Your task to perform on an android device: all mails in gmail Image 0: 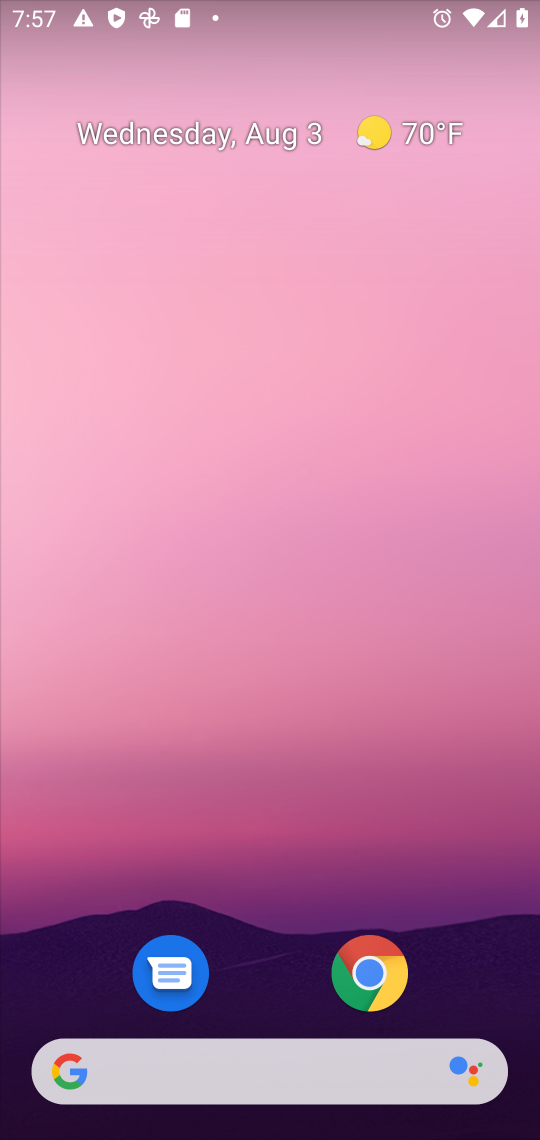
Step 0: drag from (267, 866) to (266, 102)
Your task to perform on an android device: all mails in gmail Image 1: 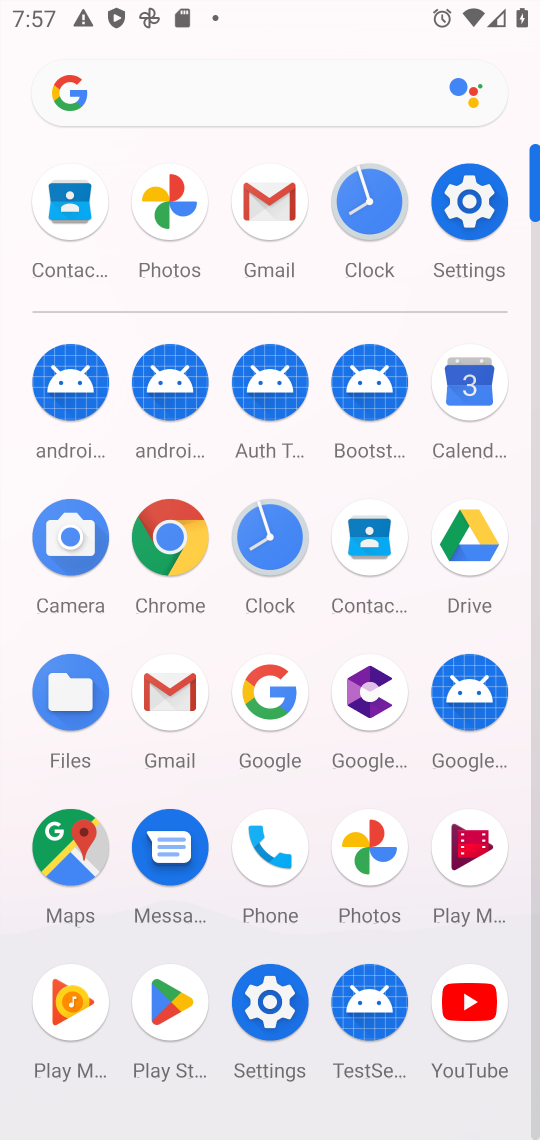
Step 1: click (266, 203)
Your task to perform on an android device: all mails in gmail Image 2: 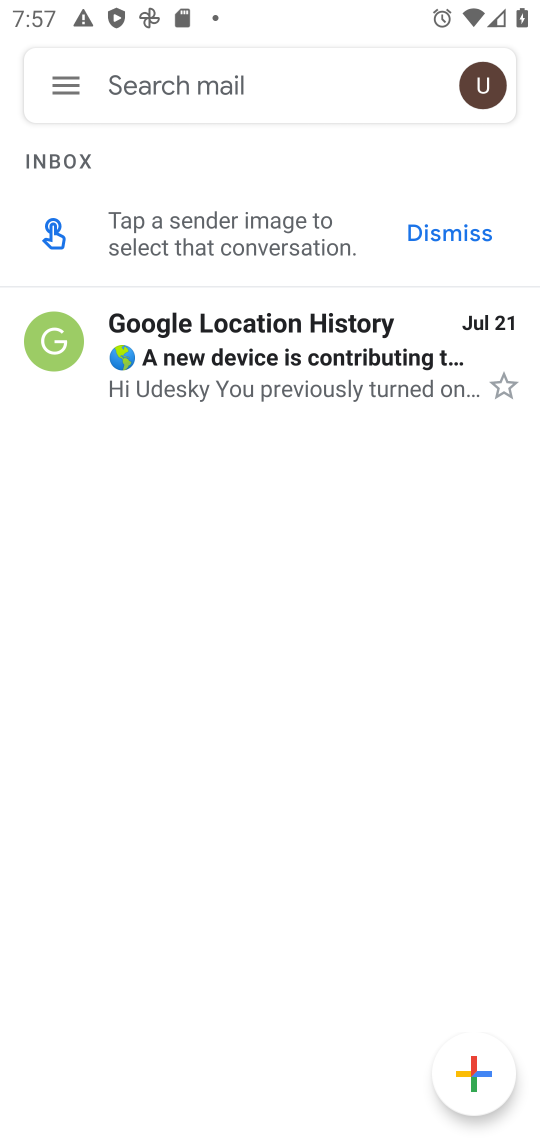
Step 2: click (52, 70)
Your task to perform on an android device: all mails in gmail Image 3: 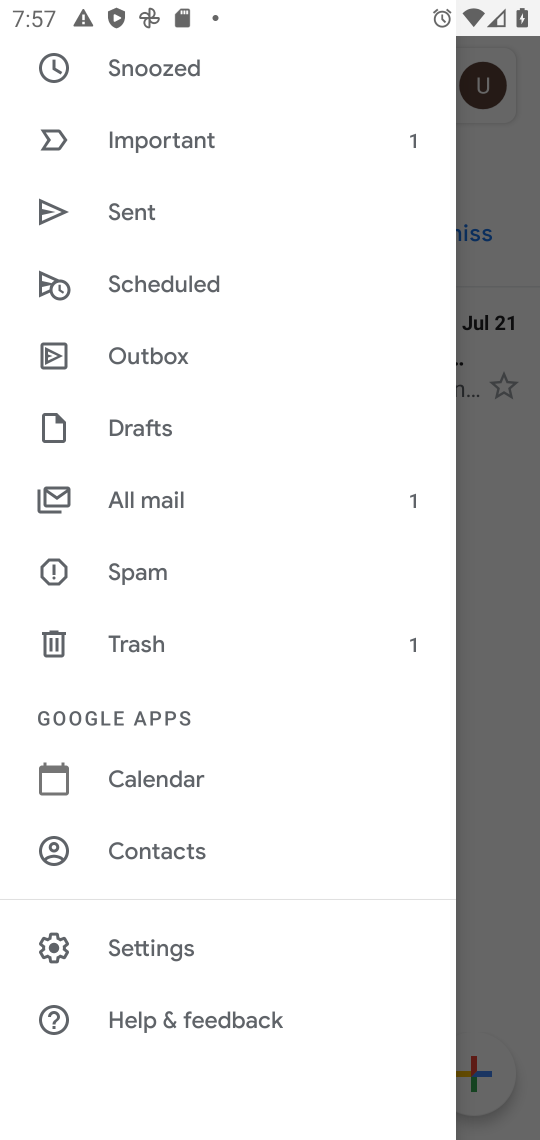
Step 3: click (161, 505)
Your task to perform on an android device: all mails in gmail Image 4: 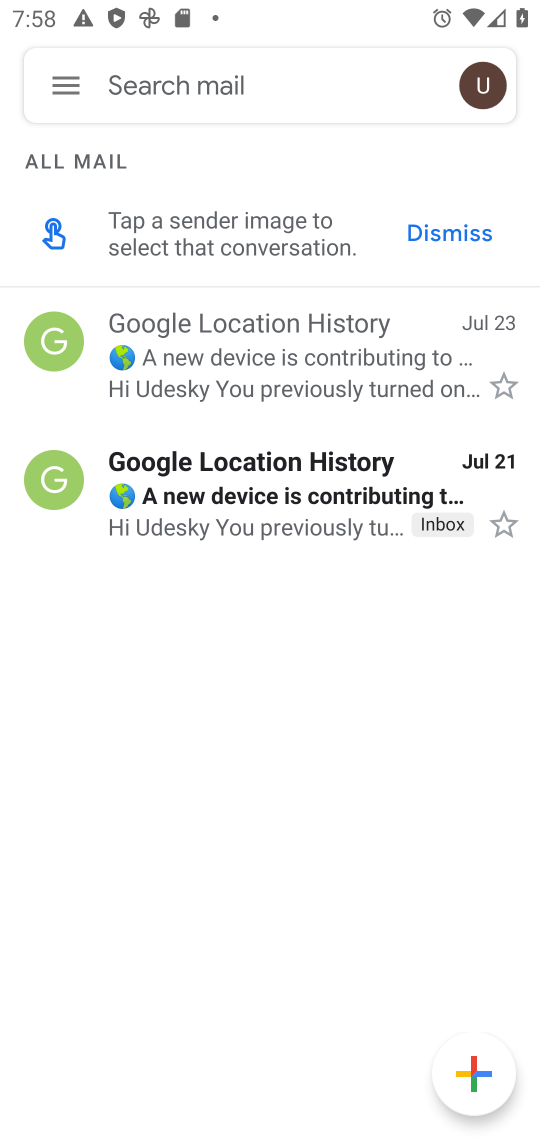
Step 4: task complete